Your task to perform on an android device: toggle show notifications on the lock screen Image 0: 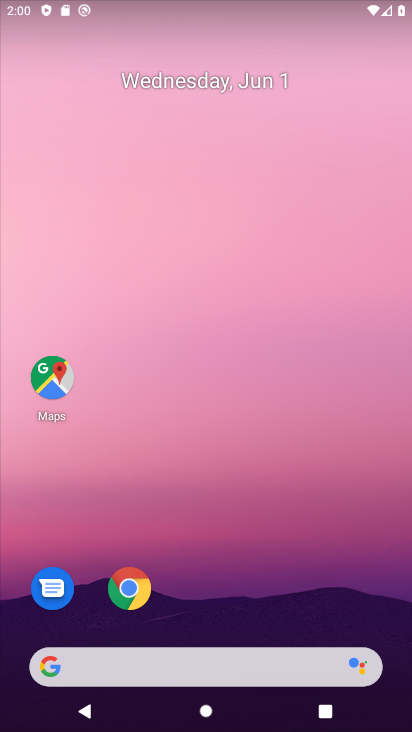
Step 0: drag from (199, 604) to (225, 112)
Your task to perform on an android device: toggle show notifications on the lock screen Image 1: 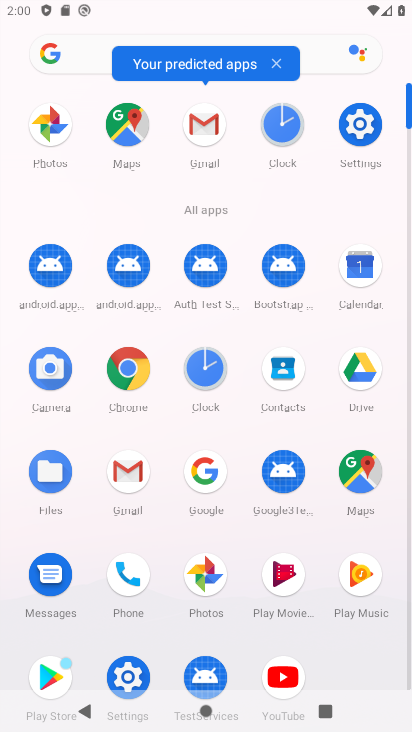
Step 1: click (353, 101)
Your task to perform on an android device: toggle show notifications on the lock screen Image 2: 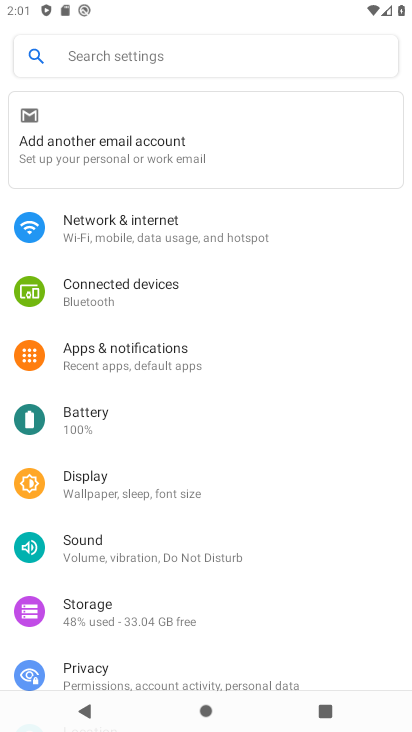
Step 2: click (131, 361)
Your task to perform on an android device: toggle show notifications on the lock screen Image 3: 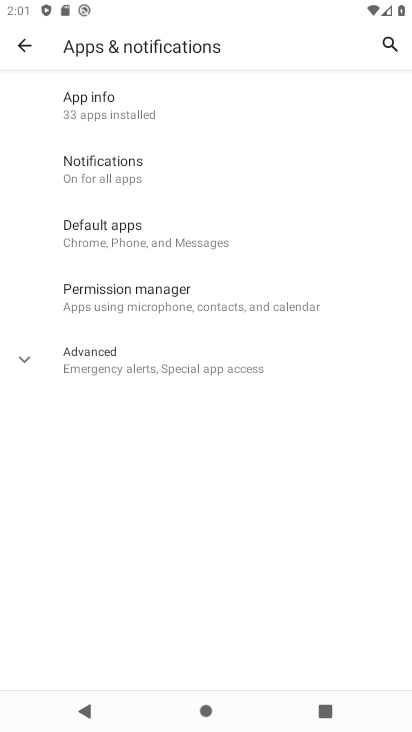
Step 3: click (18, 45)
Your task to perform on an android device: toggle show notifications on the lock screen Image 4: 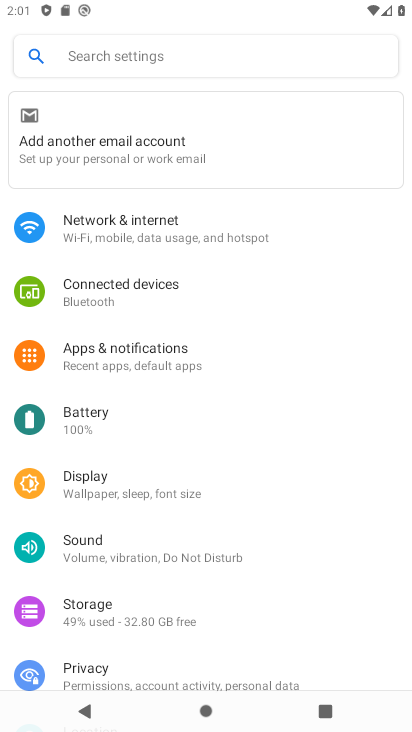
Step 4: click (142, 367)
Your task to perform on an android device: toggle show notifications on the lock screen Image 5: 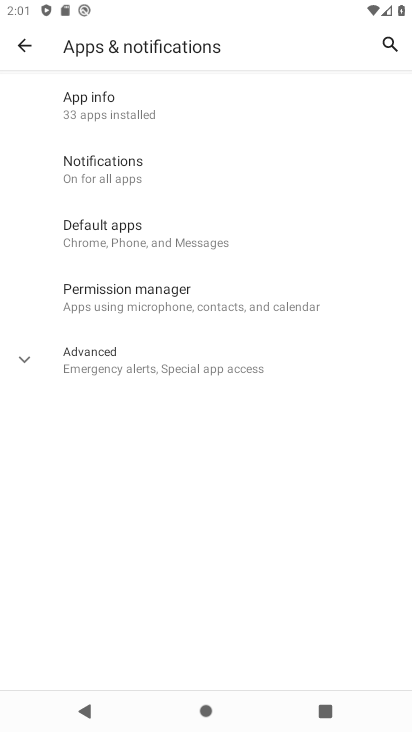
Step 5: click (106, 368)
Your task to perform on an android device: toggle show notifications on the lock screen Image 6: 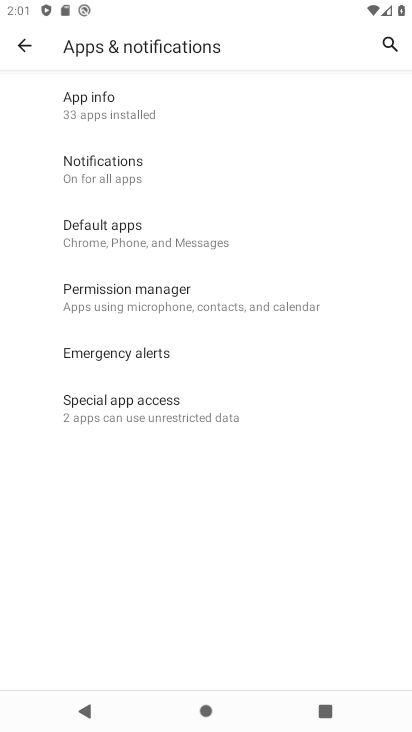
Step 6: click (114, 173)
Your task to perform on an android device: toggle show notifications on the lock screen Image 7: 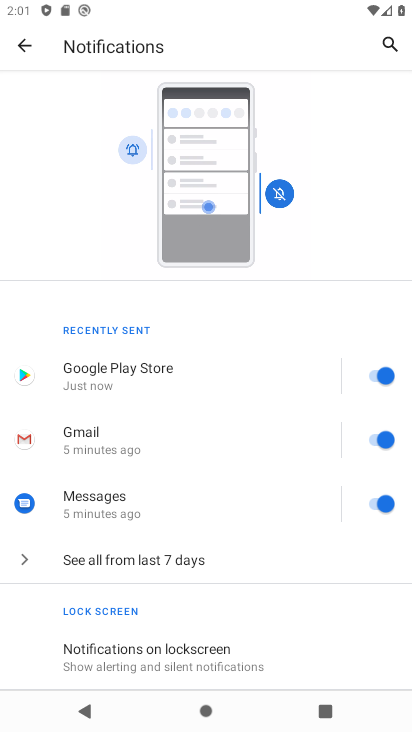
Step 7: click (172, 657)
Your task to perform on an android device: toggle show notifications on the lock screen Image 8: 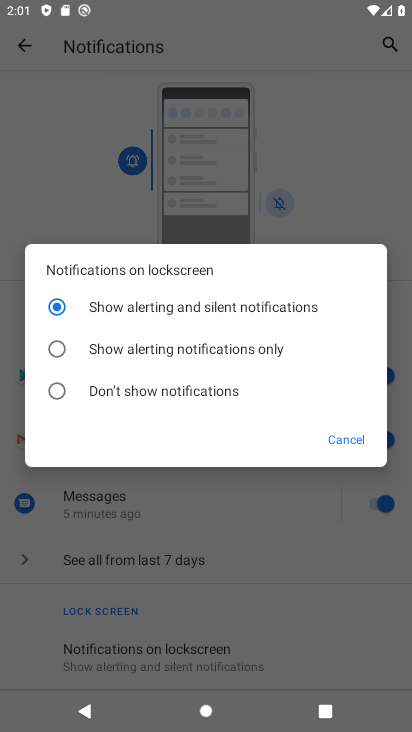
Step 8: task complete